Your task to perform on an android device: change notifications settings Image 0: 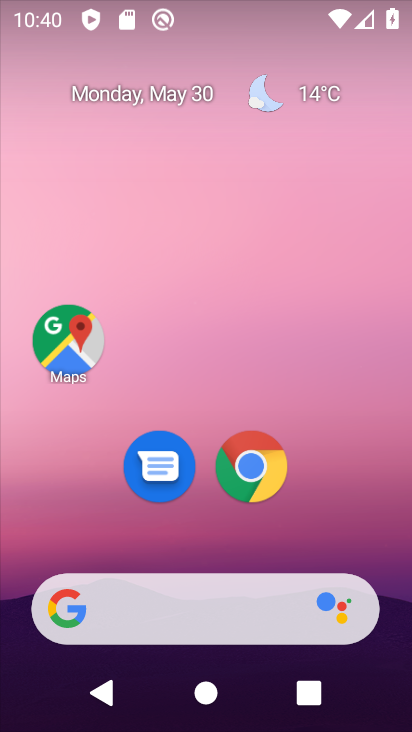
Step 0: drag from (315, 518) to (24, 22)
Your task to perform on an android device: change notifications settings Image 1: 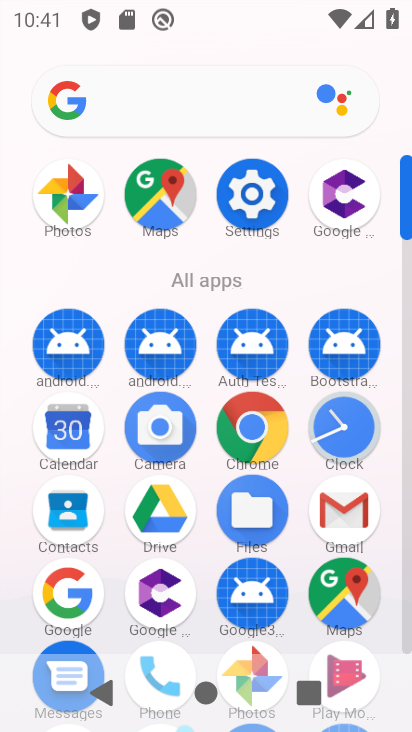
Step 1: click (255, 173)
Your task to perform on an android device: change notifications settings Image 2: 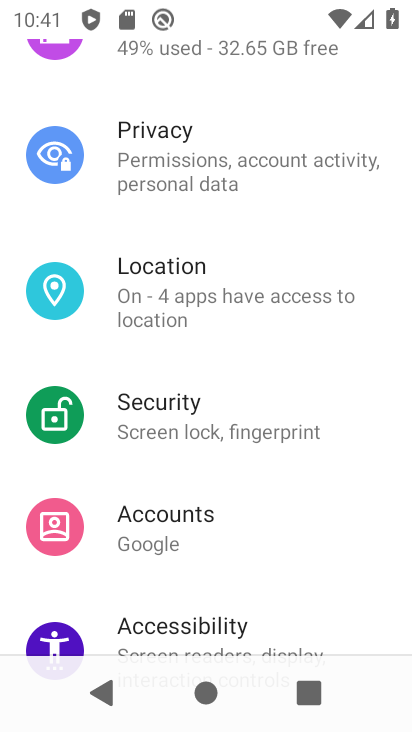
Step 2: drag from (209, 191) to (195, 676)
Your task to perform on an android device: change notifications settings Image 3: 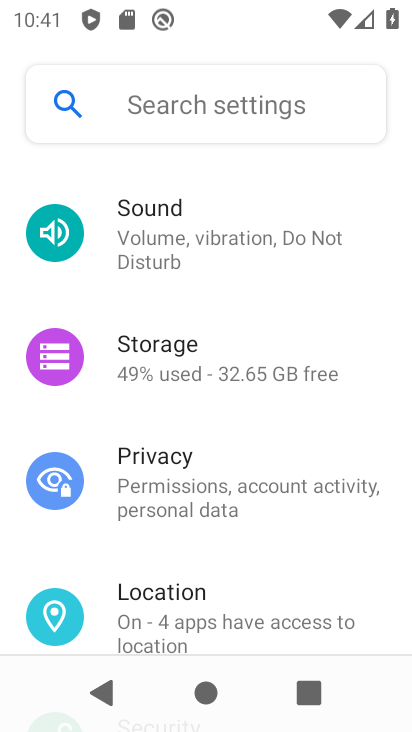
Step 3: drag from (269, 176) to (324, 587)
Your task to perform on an android device: change notifications settings Image 4: 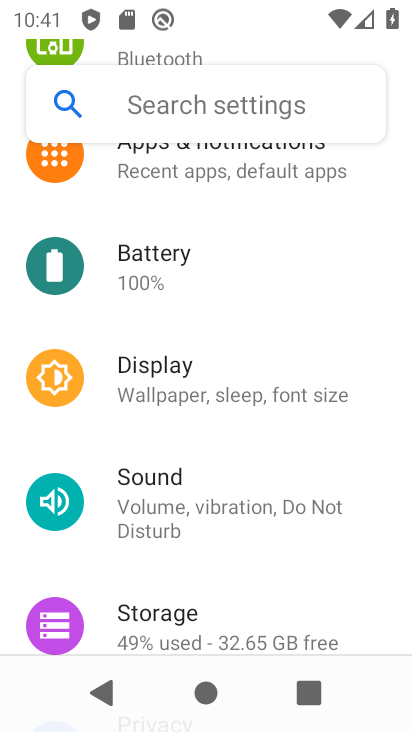
Step 4: click (269, 180)
Your task to perform on an android device: change notifications settings Image 5: 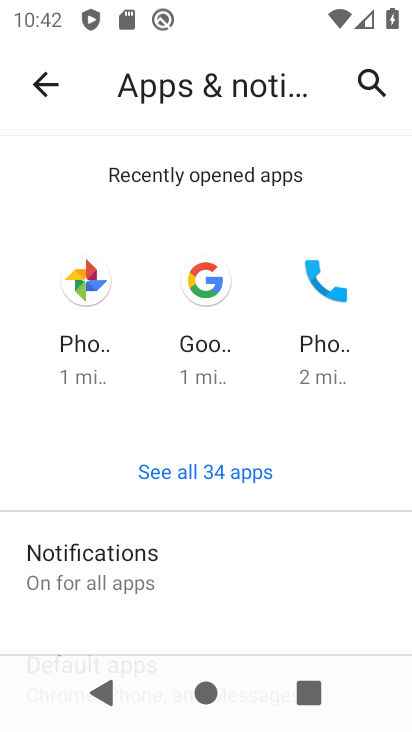
Step 5: click (131, 584)
Your task to perform on an android device: change notifications settings Image 6: 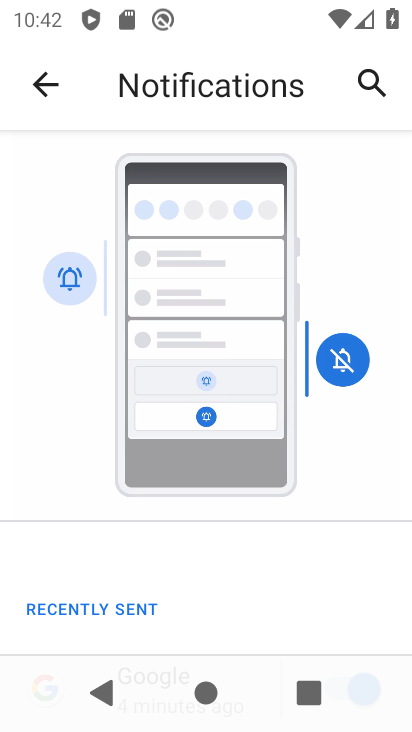
Step 6: drag from (199, 595) to (239, 75)
Your task to perform on an android device: change notifications settings Image 7: 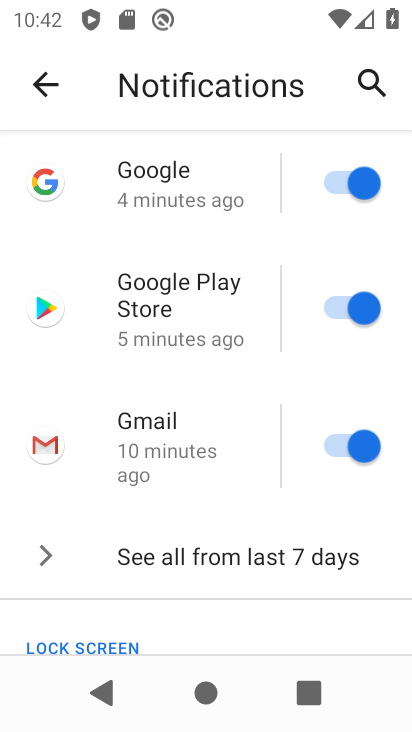
Step 7: drag from (187, 453) to (199, 94)
Your task to perform on an android device: change notifications settings Image 8: 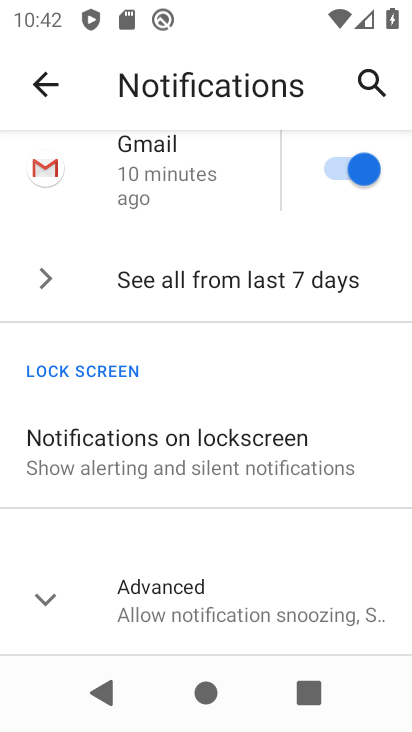
Step 8: click (245, 598)
Your task to perform on an android device: change notifications settings Image 9: 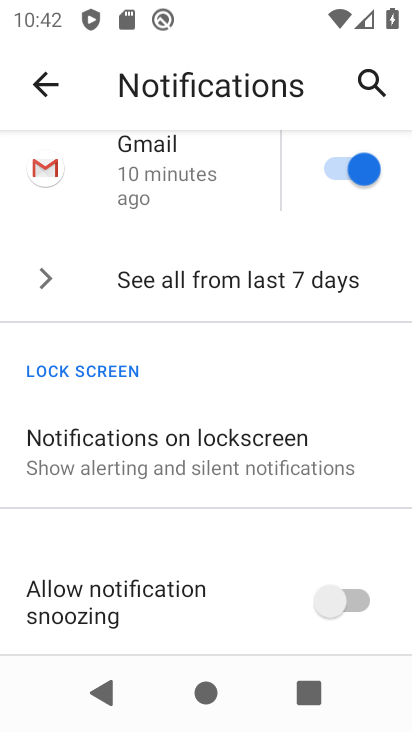
Step 9: drag from (120, 595) to (185, 101)
Your task to perform on an android device: change notifications settings Image 10: 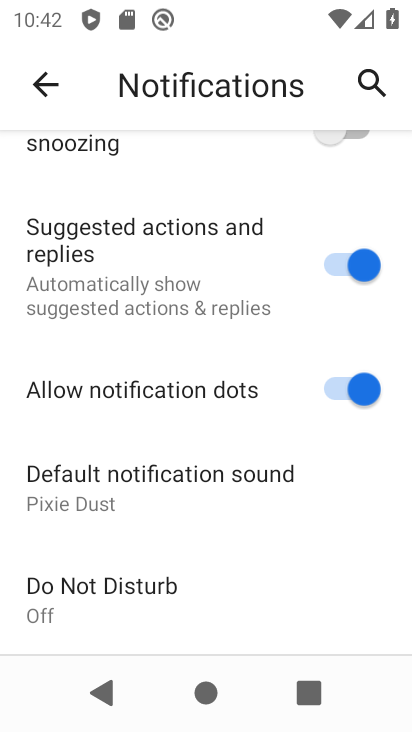
Step 10: click (358, 272)
Your task to perform on an android device: change notifications settings Image 11: 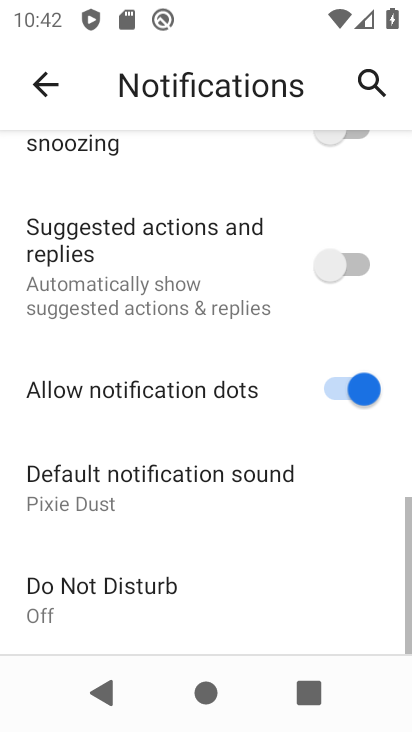
Step 11: click (341, 385)
Your task to perform on an android device: change notifications settings Image 12: 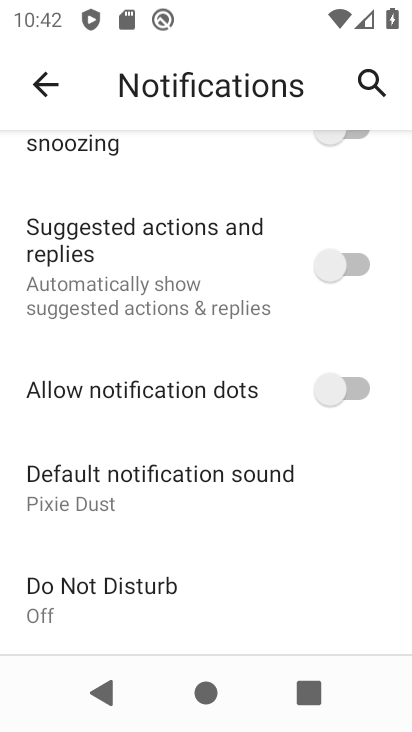
Step 12: task complete